Your task to perform on an android device: Open Google Chrome Image 0: 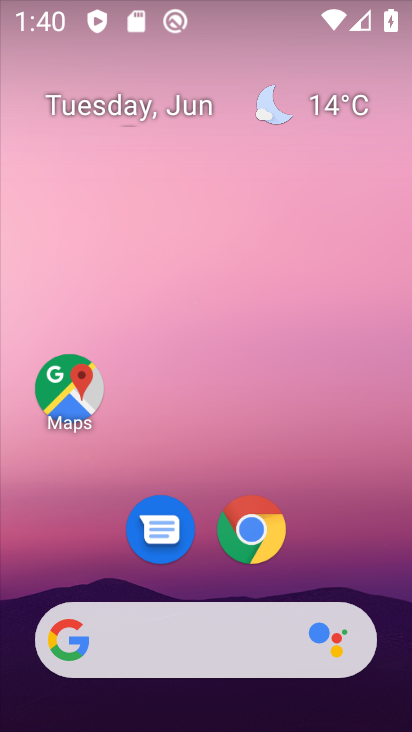
Step 0: click (247, 530)
Your task to perform on an android device: Open Google Chrome Image 1: 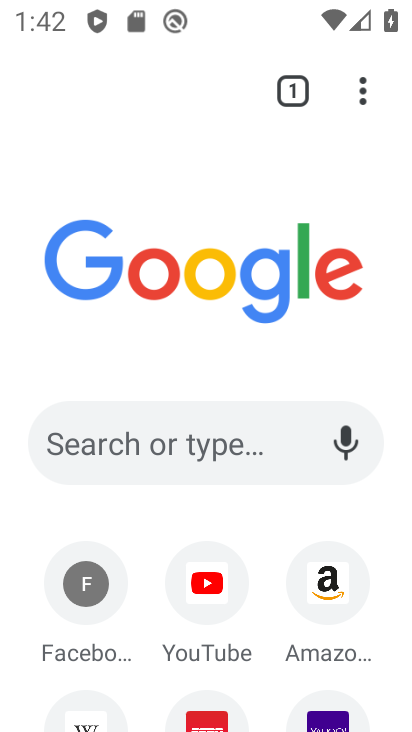
Step 1: task complete